Your task to perform on an android device: change keyboard looks Image 0: 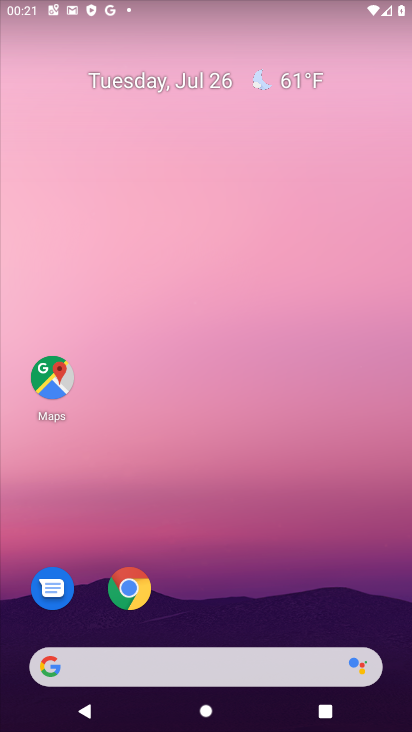
Step 0: press home button
Your task to perform on an android device: change keyboard looks Image 1: 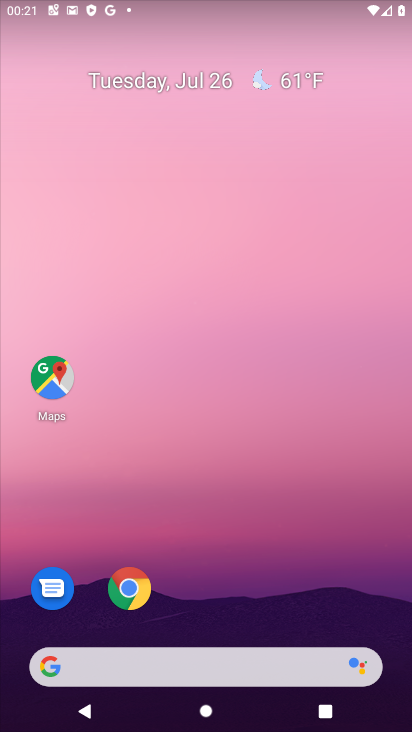
Step 1: drag from (218, 624) to (219, 65)
Your task to perform on an android device: change keyboard looks Image 2: 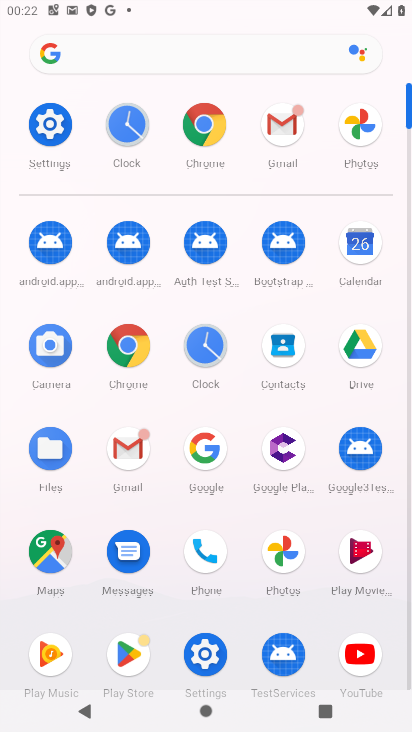
Step 2: click (200, 649)
Your task to perform on an android device: change keyboard looks Image 3: 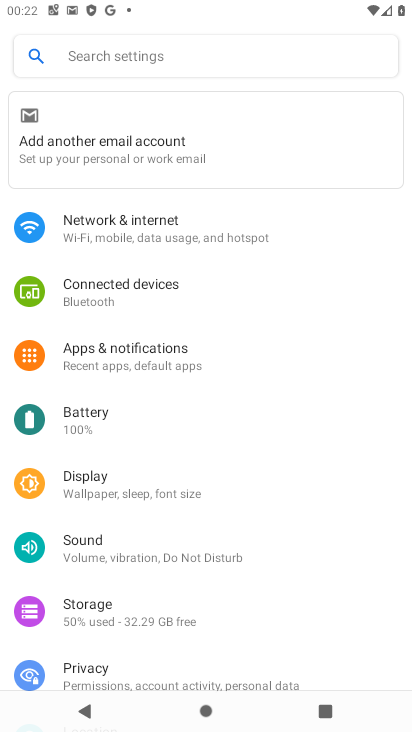
Step 3: drag from (156, 661) to (173, 96)
Your task to perform on an android device: change keyboard looks Image 4: 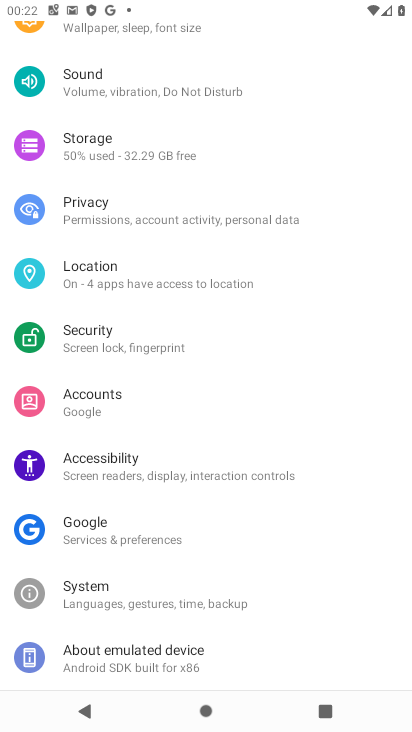
Step 4: click (118, 590)
Your task to perform on an android device: change keyboard looks Image 5: 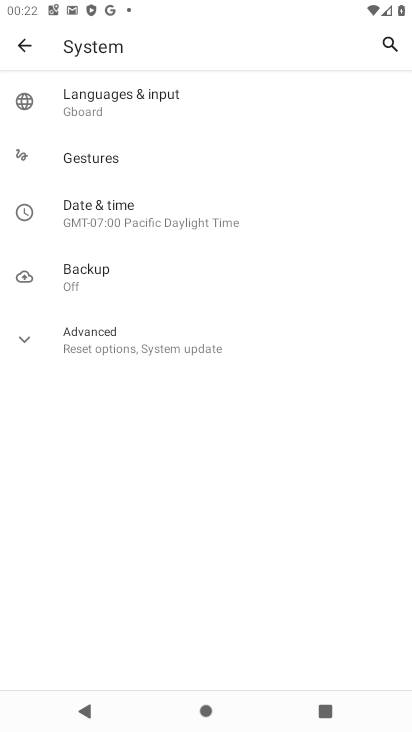
Step 5: click (37, 337)
Your task to perform on an android device: change keyboard looks Image 6: 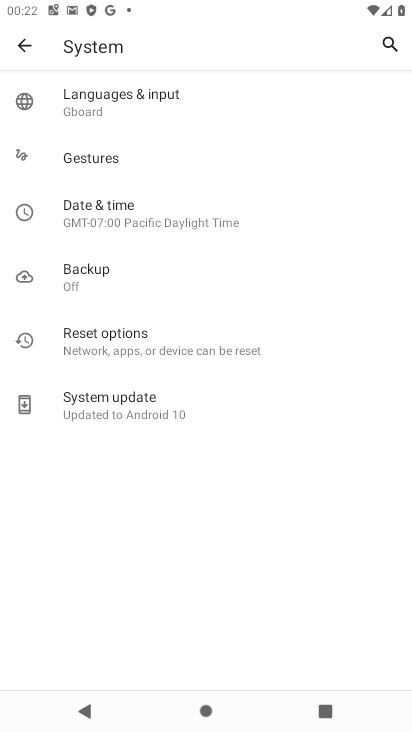
Step 6: click (74, 100)
Your task to perform on an android device: change keyboard looks Image 7: 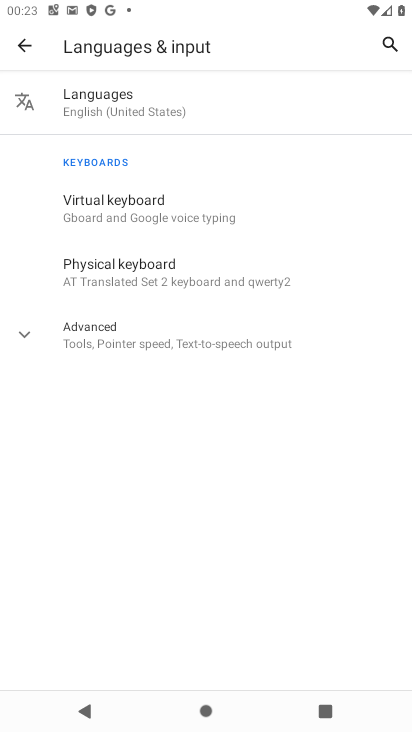
Step 7: click (119, 210)
Your task to perform on an android device: change keyboard looks Image 8: 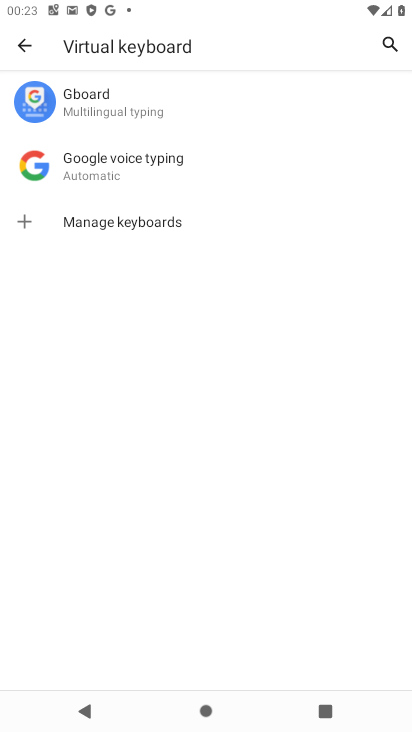
Step 8: click (109, 92)
Your task to perform on an android device: change keyboard looks Image 9: 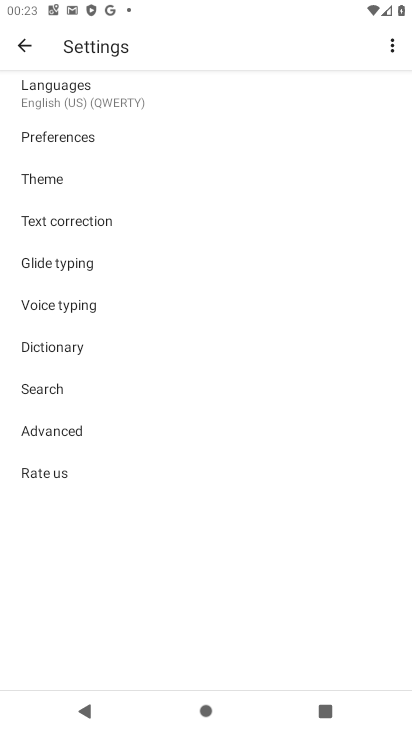
Step 9: click (74, 182)
Your task to perform on an android device: change keyboard looks Image 10: 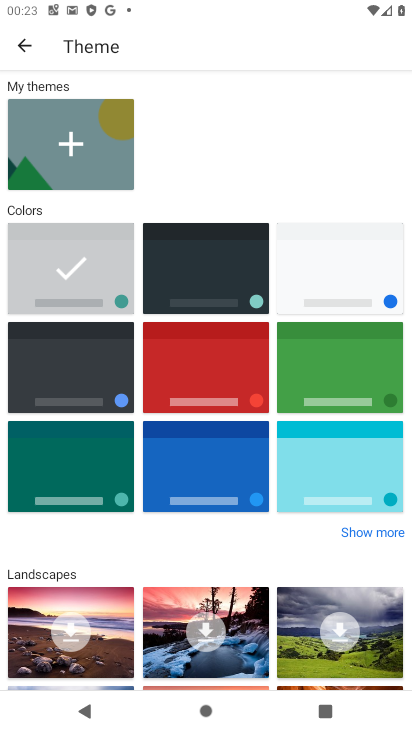
Step 10: click (217, 378)
Your task to perform on an android device: change keyboard looks Image 11: 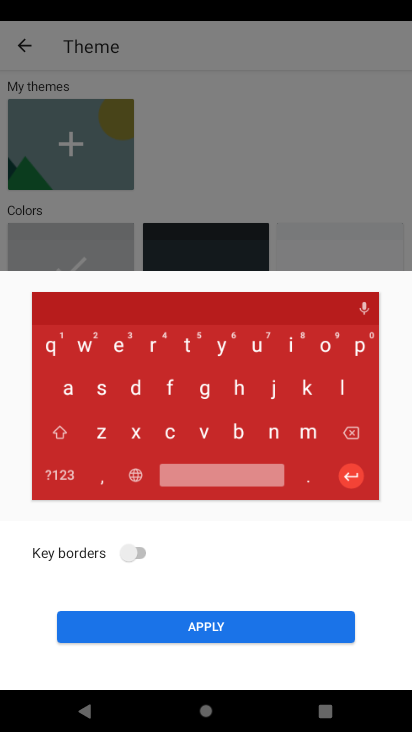
Step 11: click (206, 620)
Your task to perform on an android device: change keyboard looks Image 12: 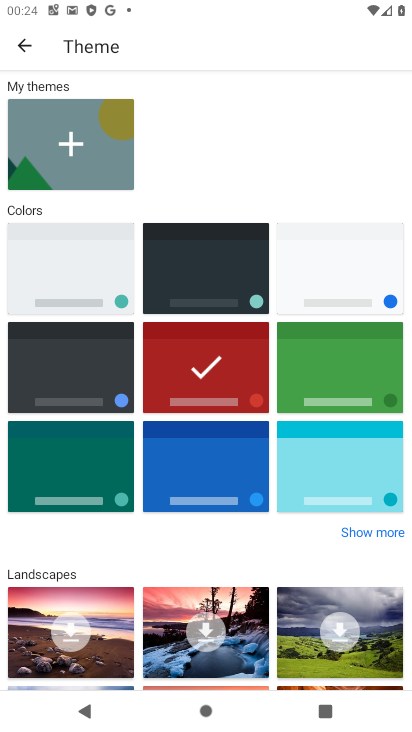
Step 12: task complete